Your task to perform on an android device: What's the weather? Image 0: 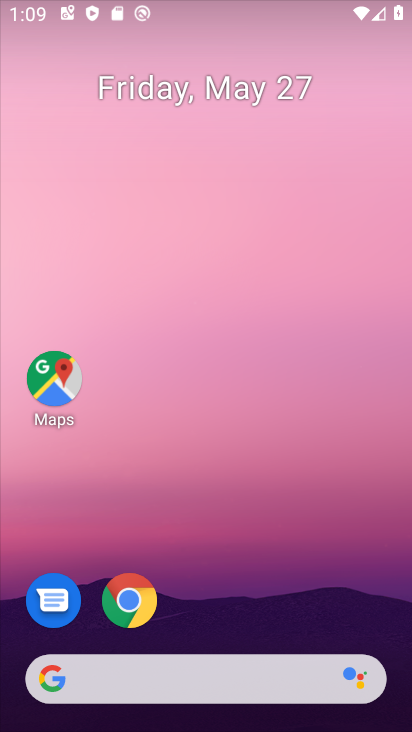
Step 0: drag from (238, 722) to (212, 205)
Your task to perform on an android device: What's the weather? Image 1: 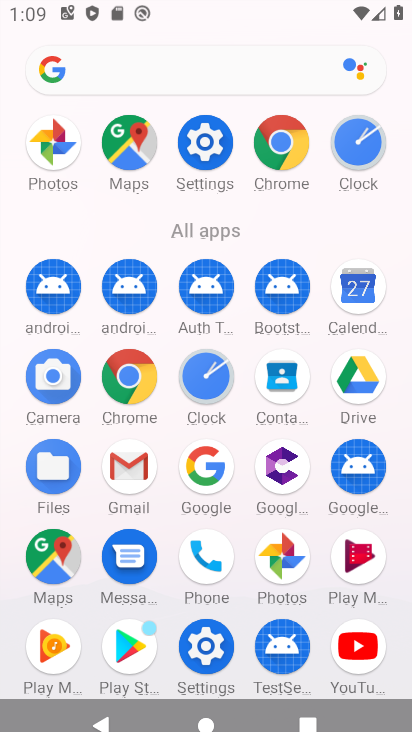
Step 1: click (205, 471)
Your task to perform on an android device: What's the weather? Image 2: 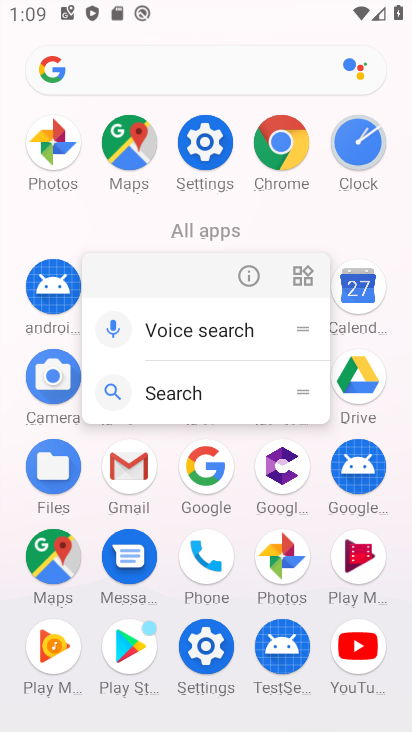
Step 2: click (210, 467)
Your task to perform on an android device: What's the weather? Image 3: 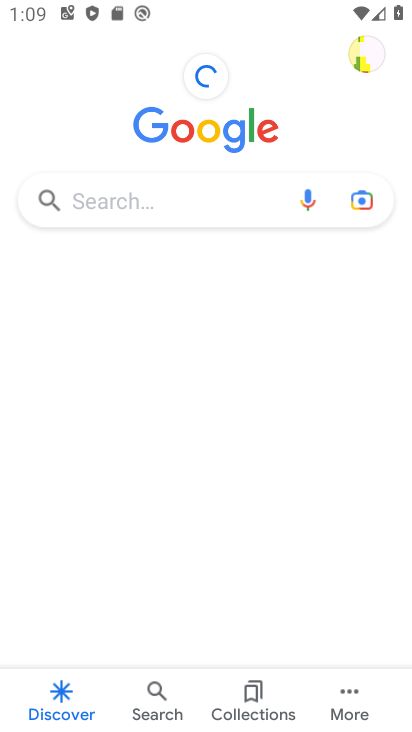
Step 3: click (163, 195)
Your task to perform on an android device: What's the weather? Image 4: 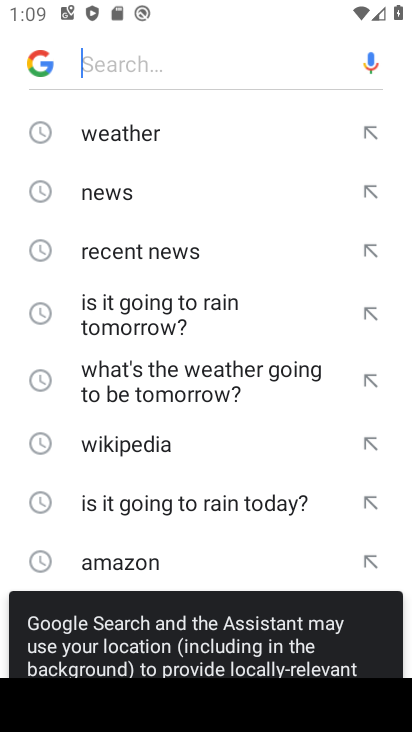
Step 4: click (120, 123)
Your task to perform on an android device: What's the weather? Image 5: 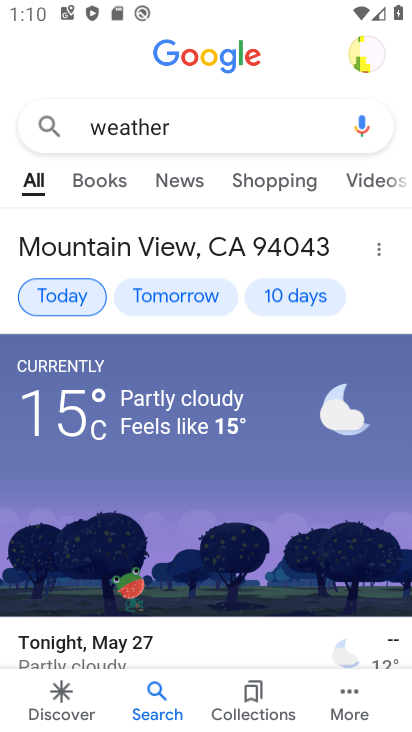
Step 5: click (59, 303)
Your task to perform on an android device: What's the weather? Image 6: 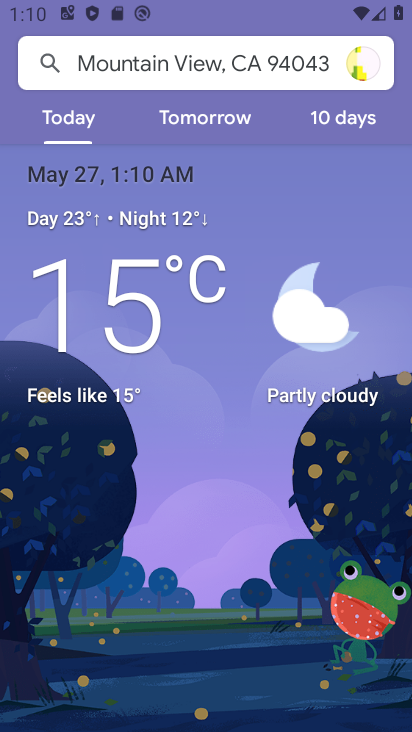
Step 6: task complete